Your task to perform on an android device: Is it going to rain this weekend? Image 0: 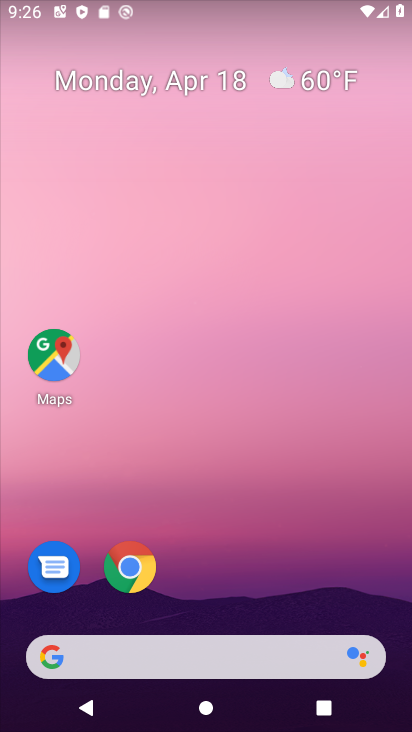
Step 0: click (191, 673)
Your task to perform on an android device: Is it going to rain this weekend? Image 1: 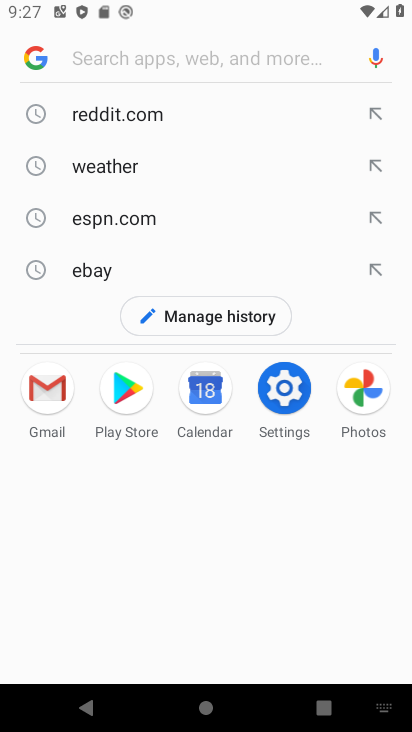
Step 1: type "Is it going to rain this weekend?"
Your task to perform on an android device: Is it going to rain this weekend? Image 2: 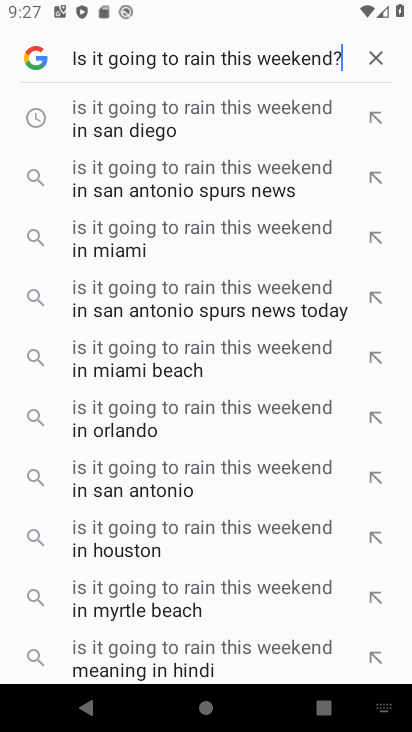
Step 2: click (163, 105)
Your task to perform on an android device: Is it going to rain this weekend? Image 3: 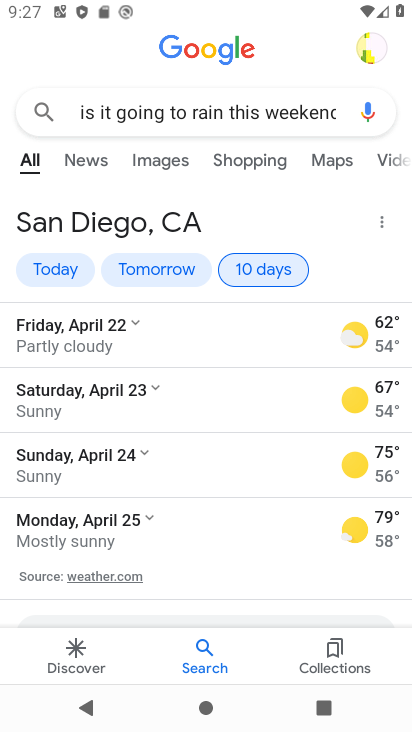
Step 3: task complete